Your task to perform on an android device: visit the assistant section in the google photos Image 0: 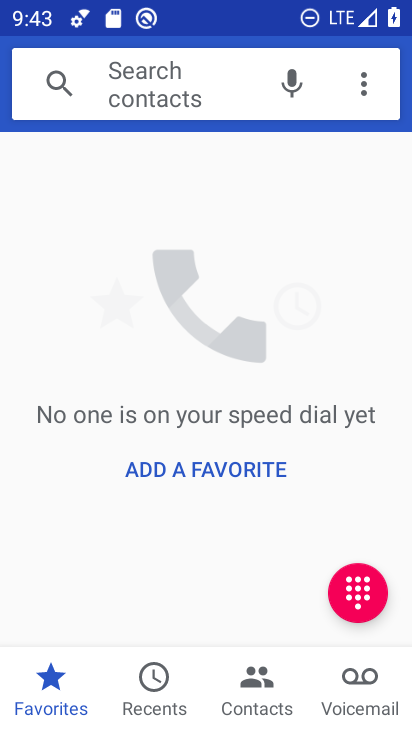
Step 0: press home button
Your task to perform on an android device: visit the assistant section in the google photos Image 1: 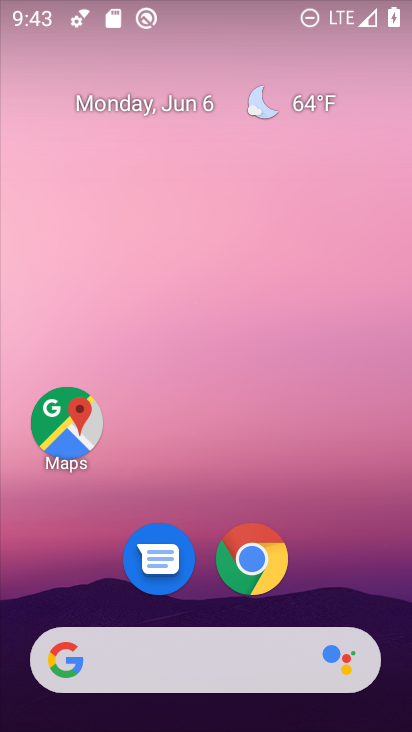
Step 1: drag from (232, 699) to (220, 0)
Your task to perform on an android device: visit the assistant section in the google photos Image 2: 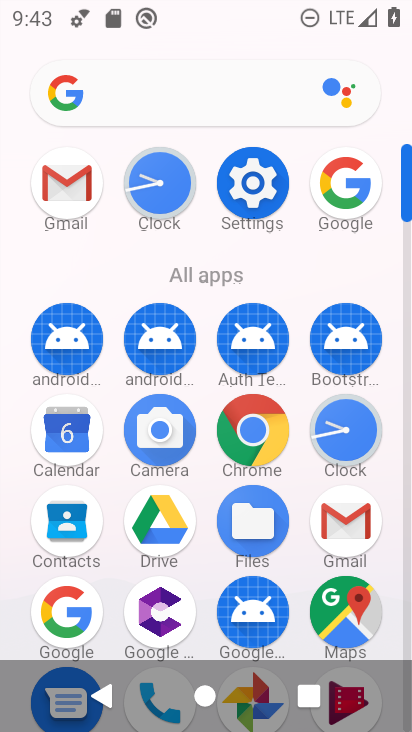
Step 2: drag from (207, 617) to (213, 271)
Your task to perform on an android device: visit the assistant section in the google photos Image 3: 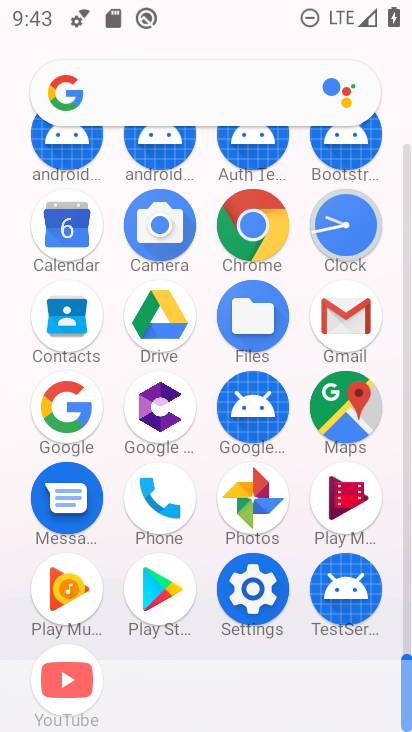
Step 3: click (262, 499)
Your task to perform on an android device: visit the assistant section in the google photos Image 4: 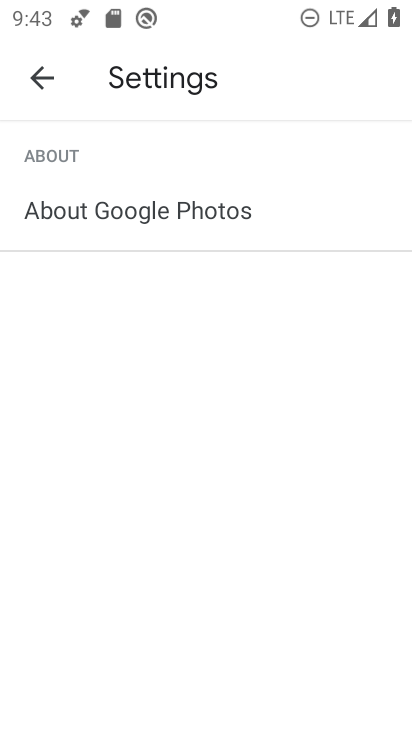
Step 4: click (46, 75)
Your task to perform on an android device: visit the assistant section in the google photos Image 5: 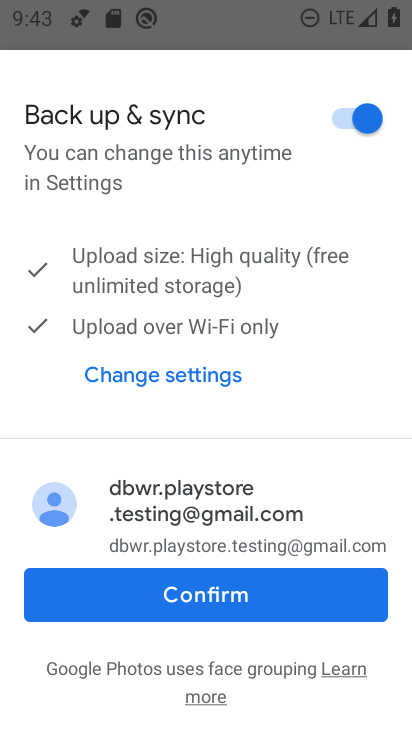
Step 5: click (229, 591)
Your task to perform on an android device: visit the assistant section in the google photos Image 6: 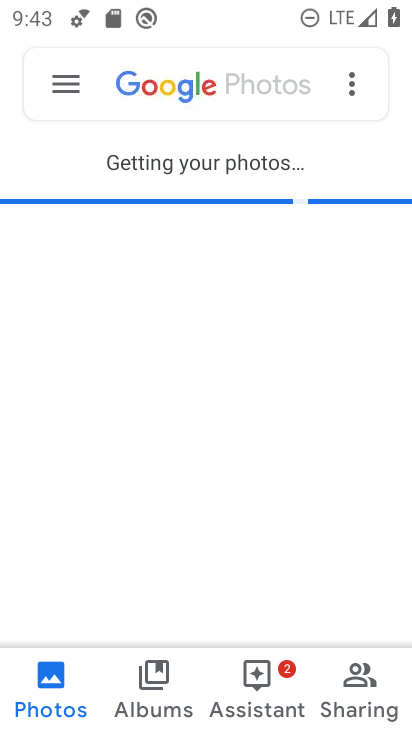
Step 6: click (257, 689)
Your task to perform on an android device: visit the assistant section in the google photos Image 7: 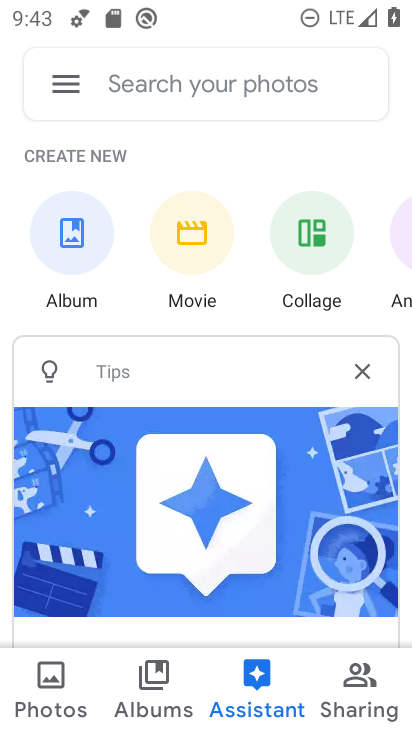
Step 7: task complete